Your task to perform on an android device: Search for Mexican restaurants on Maps Image 0: 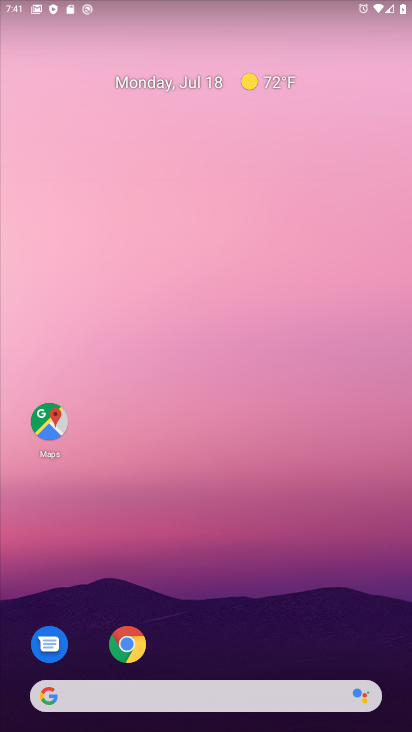
Step 0: drag from (396, 671) to (148, 4)
Your task to perform on an android device: Search for Mexican restaurants on Maps Image 1: 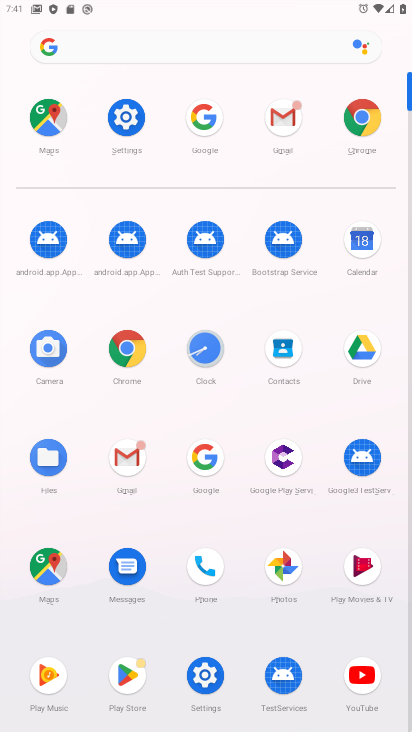
Step 1: click (42, 576)
Your task to perform on an android device: Search for Mexican restaurants on Maps Image 2: 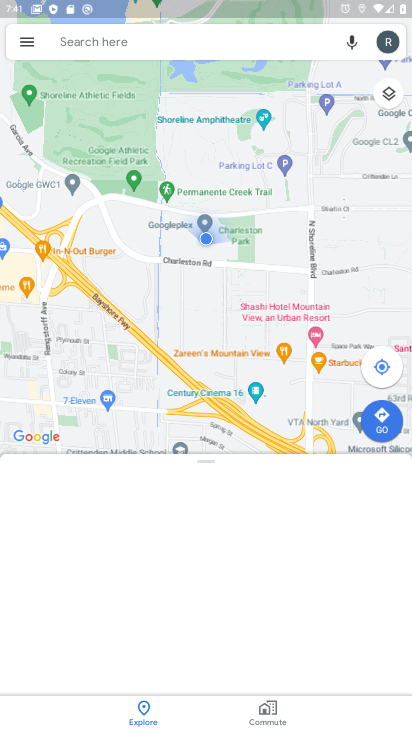
Step 2: click (121, 43)
Your task to perform on an android device: Search for Mexican restaurants on Maps Image 3: 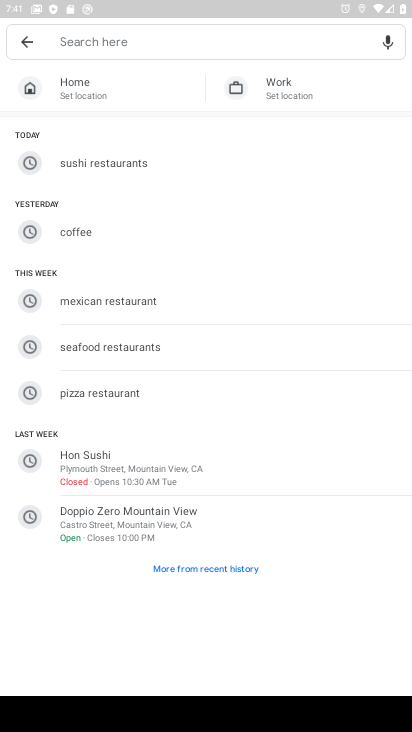
Step 3: click (117, 304)
Your task to perform on an android device: Search for Mexican restaurants on Maps Image 4: 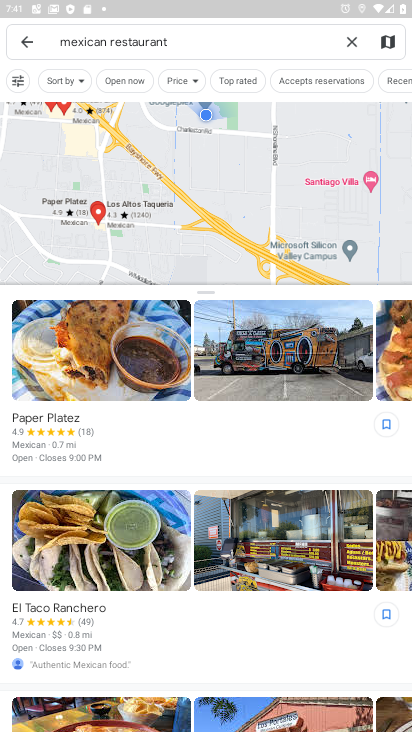
Step 4: task complete